Your task to perform on an android device: Open calendar and show me the fourth week of next month Image 0: 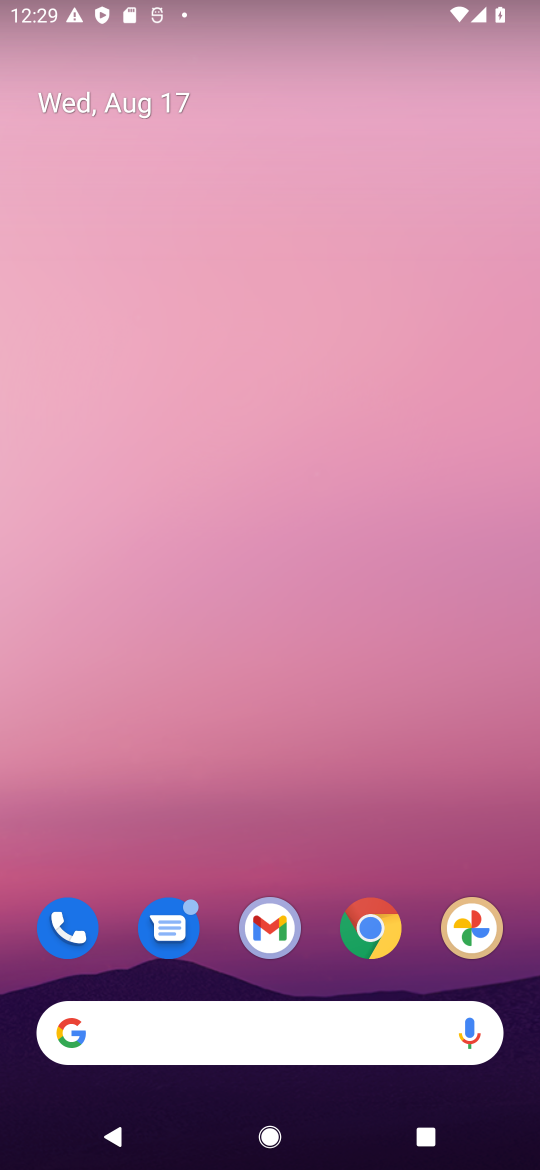
Step 0: drag from (316, 823) to (316, 200)
Your task to perform on an android device: Open calendar and show me the fourth week of next month Image 1: 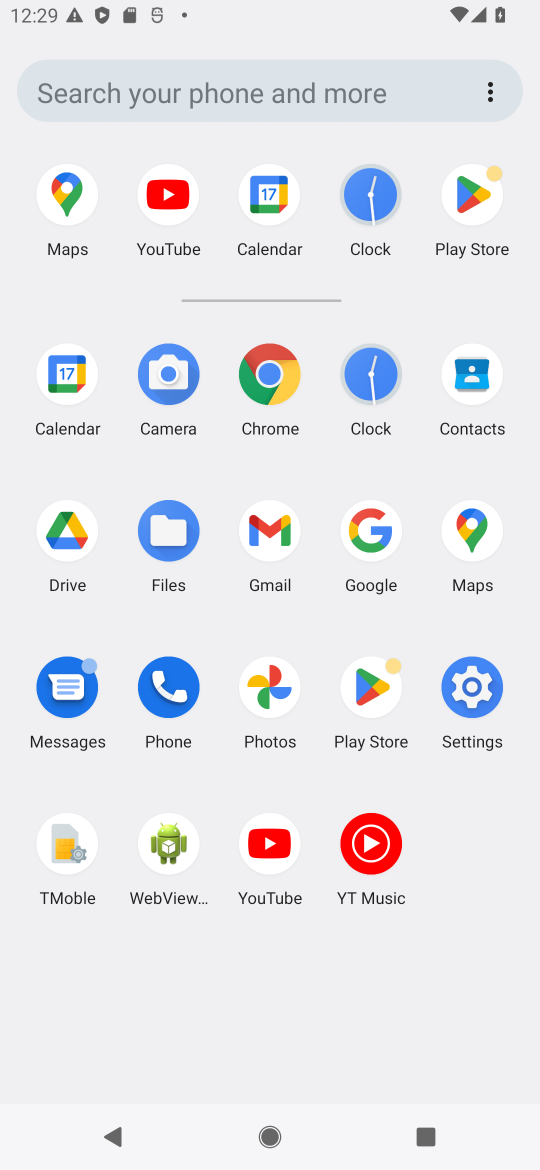
Step 1: click (81, 408)
Your task to perform on an android device: Open calendar and show me the fourth week of next month Image 2: 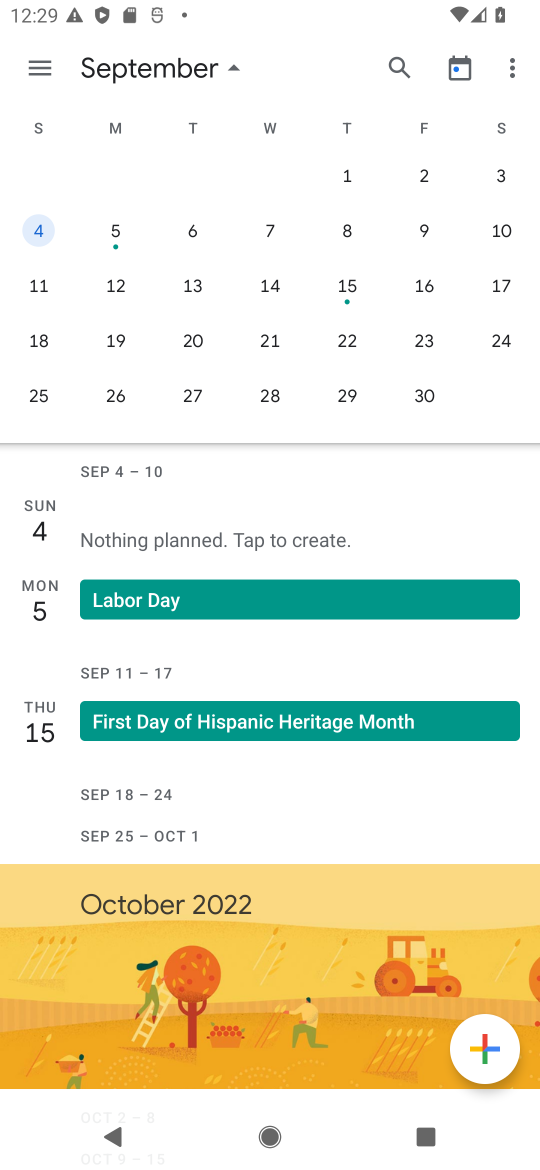
Step 2: click (39, 325)
Your task to perform on an android device: Open calendar and show me the fourth week of next month Image 3: 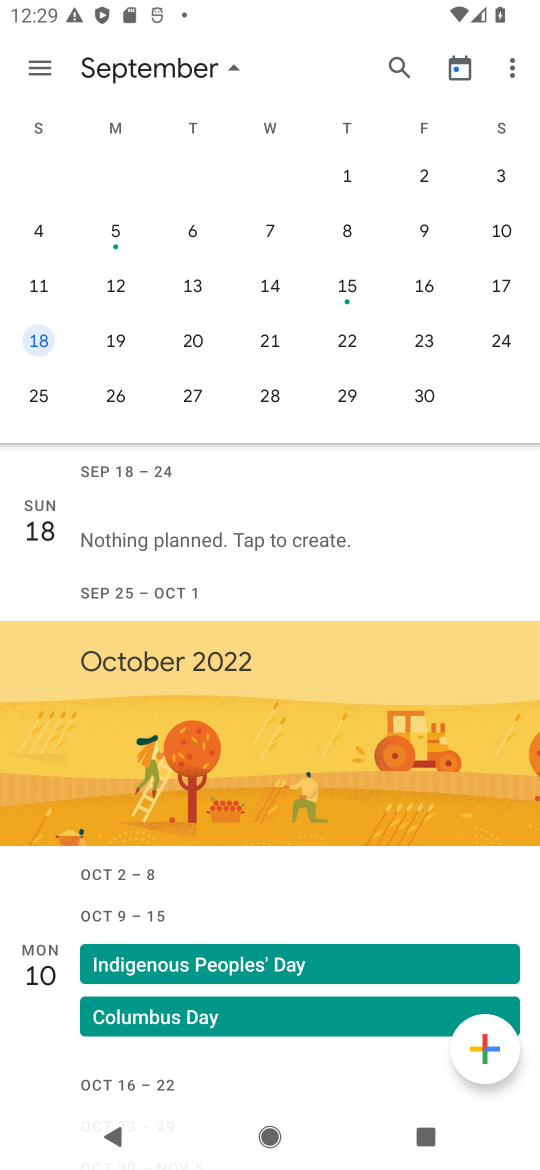
Step 3: task complete